Your task to perform on an android device: all mails in gmail Image 0: 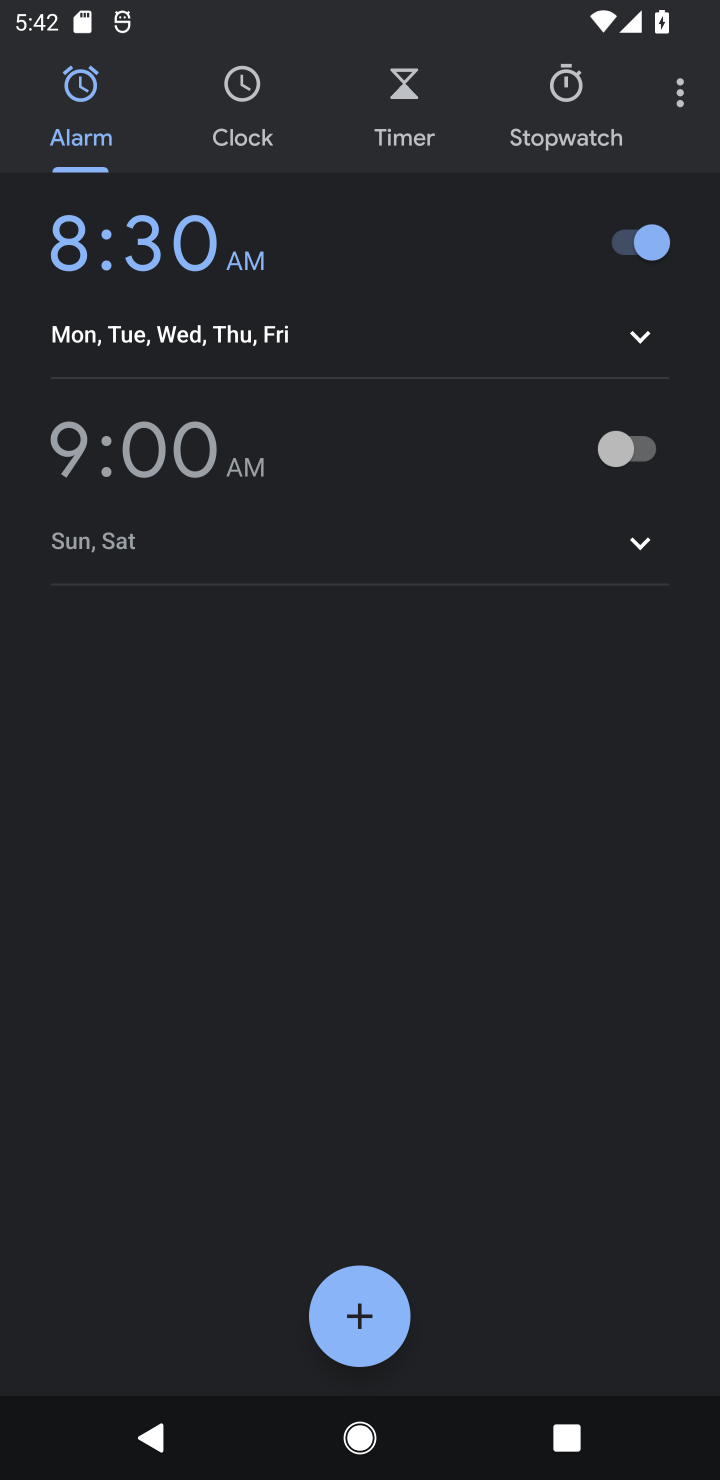
Step 0: press home button
Your task to perform on an android device: all mails in gmail Image 1: 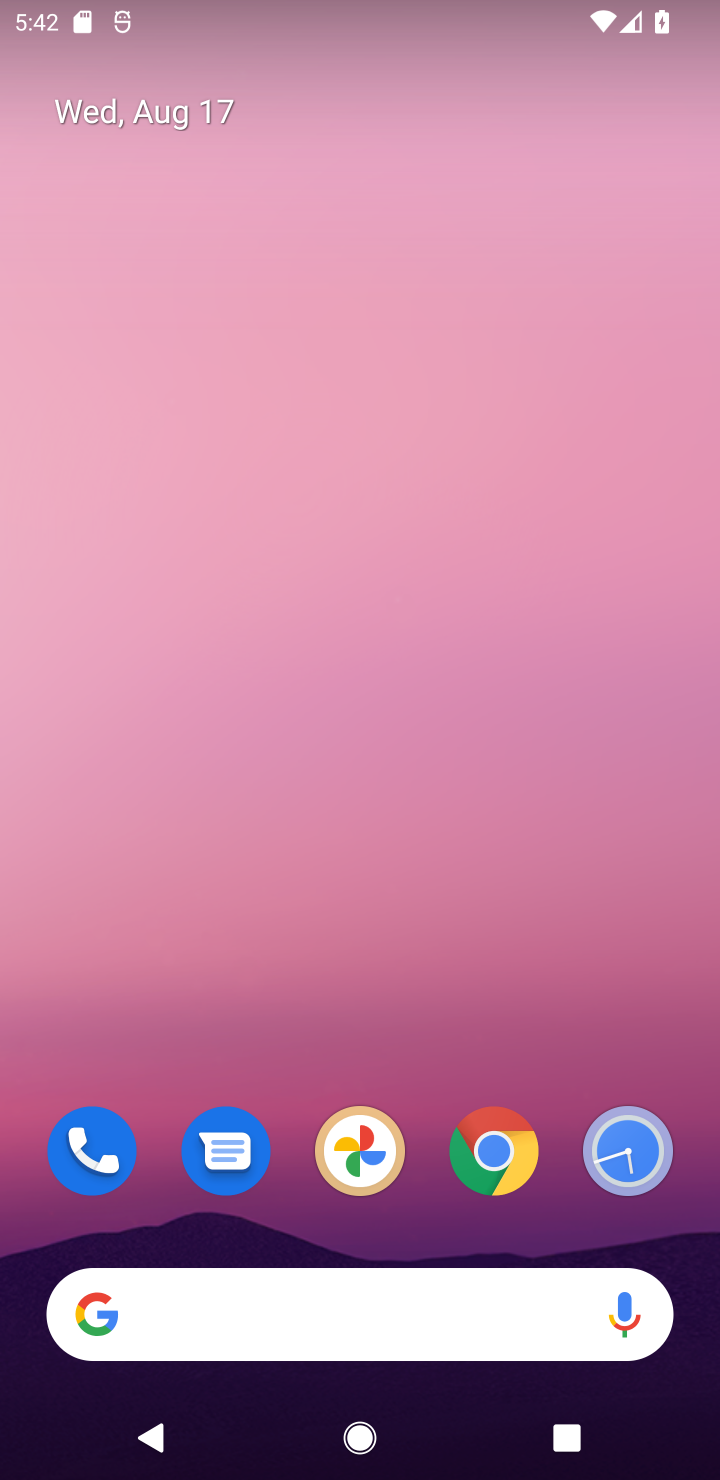
Step 1: drag from (410, 1233) to (394, 102)
Your task to perform on an android device: all mails in gmail Image 2: 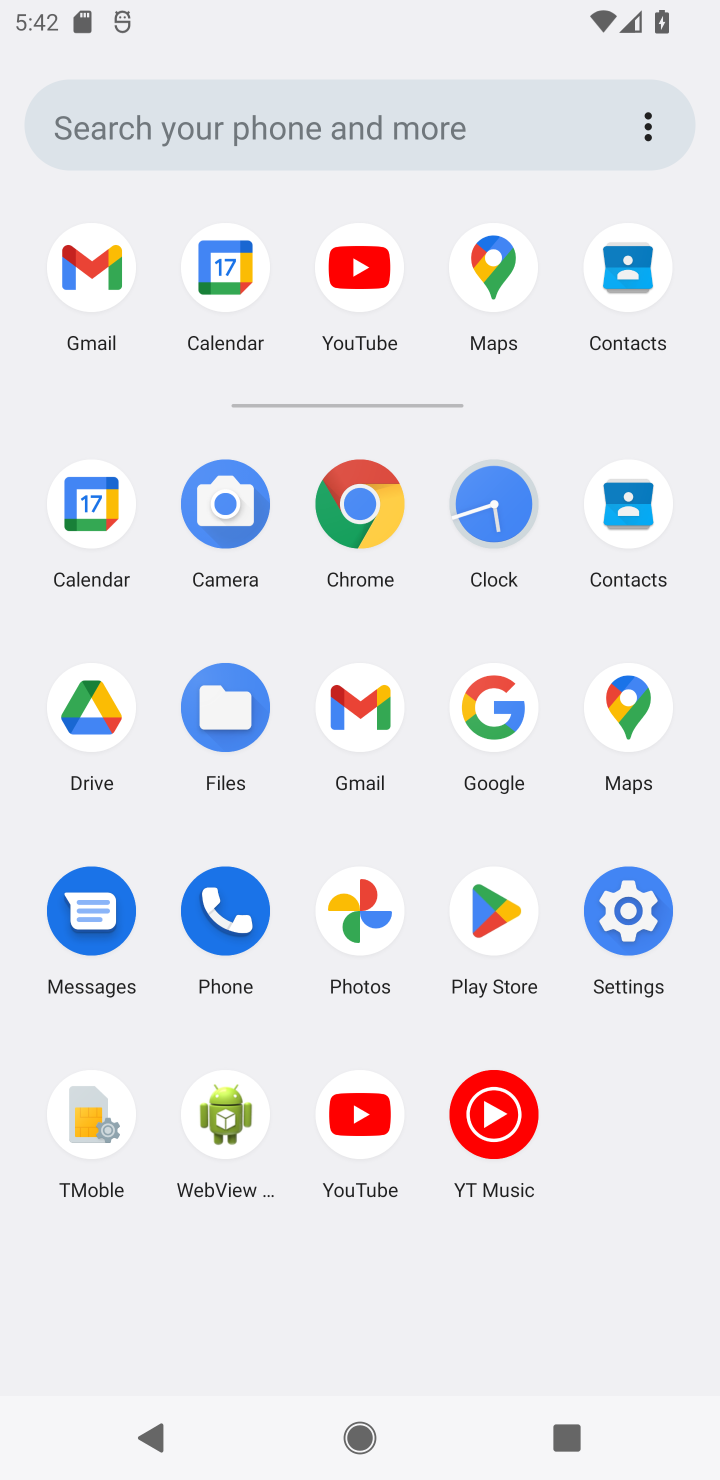
Step 2: click (61, 265)
Your task to perform on an android device: all mails in gmail Image 3: 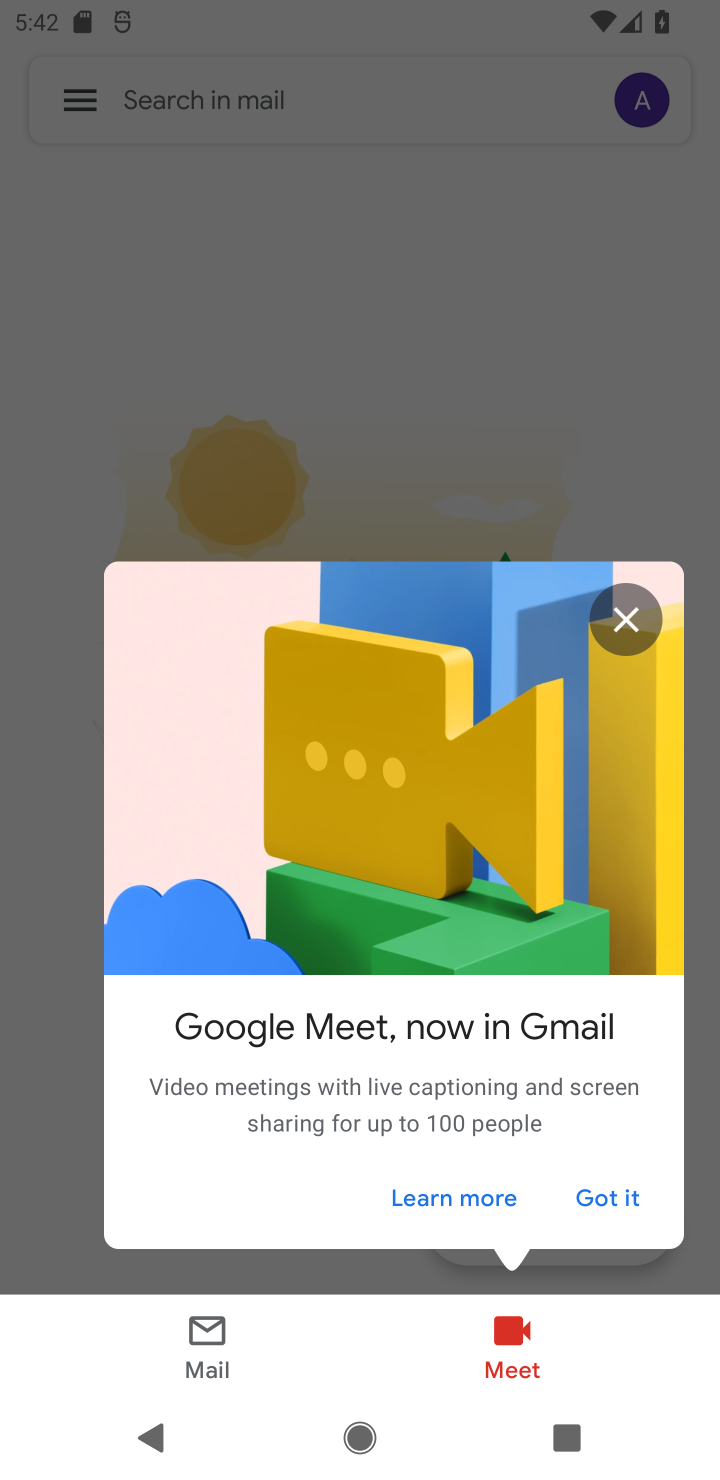
Step 3: task complete